Your task to perform on an android device: turn off priority inbox in the gmail app Image 0: 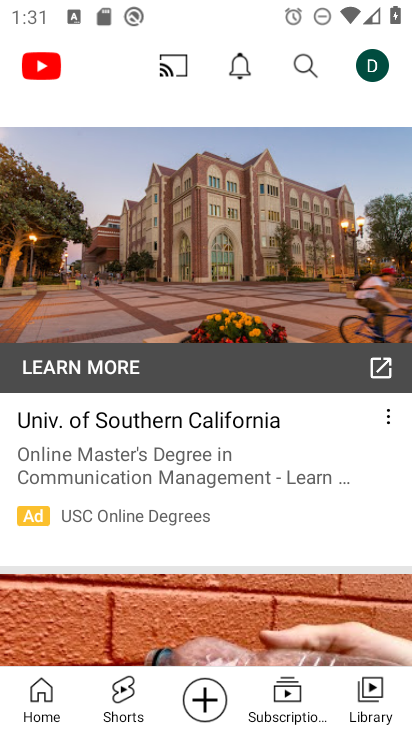
Step 0: press home button
Your task to perform on an android device: turn off priority inbox in the gmail app Image 1: 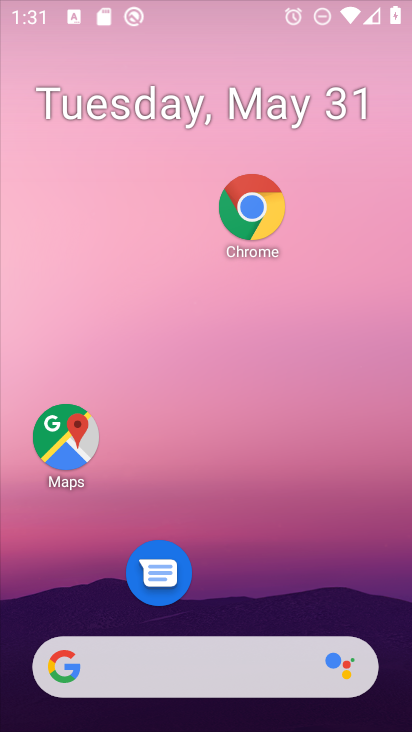
Step 1: drag from (214, 646) to (309, 218)
Your task to perform on an android device: turn off priority inbox in the gmail app Image 2: 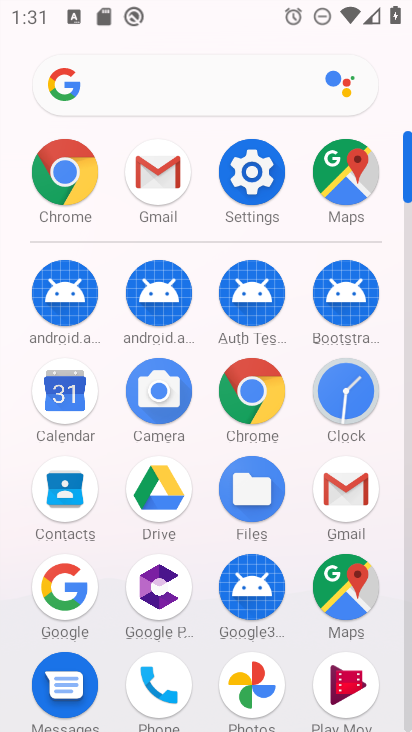
Step 2: click (343, 501)
Your task to perform on an android device: turn off priority inbox in the gmail app Image 3: 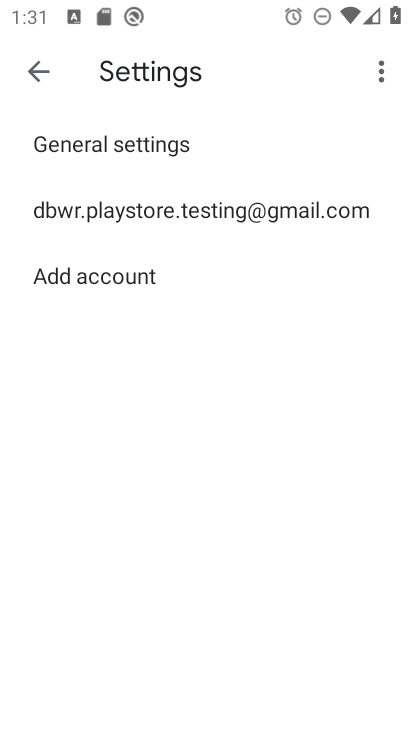
Step 3: click (202, 218)
Your task to perform on an android device: turn off priority inbox in the gmail app Image 4: 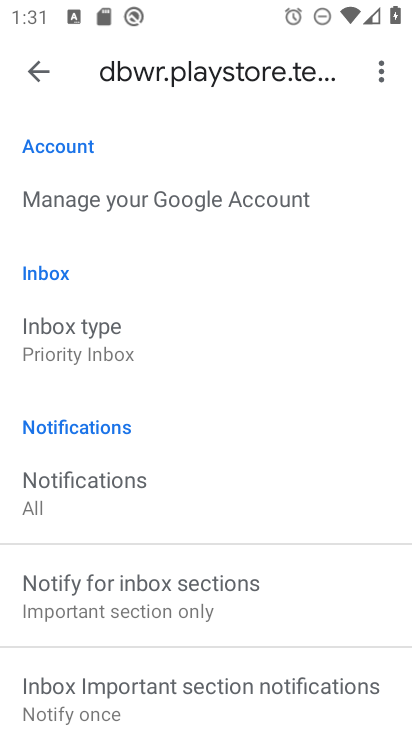
Step 4: click (119, 341)
Your task to perform on an android device: turn off priority inbox in the gmail app Image 5: 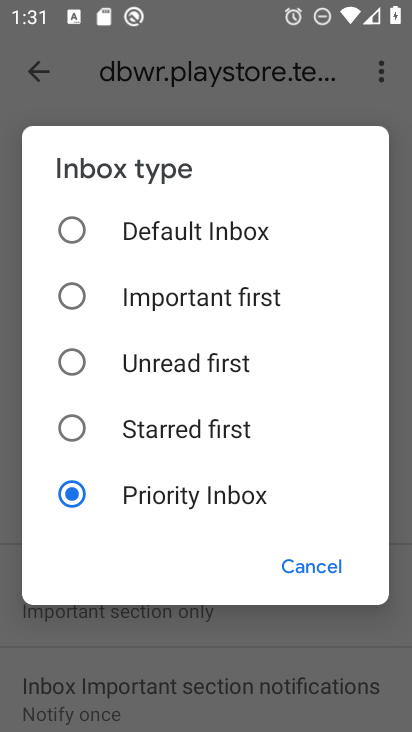
Step 5: click (77, 245)
Your task to perform on an android device: turn off priority inbox in the gmail app Image 6: 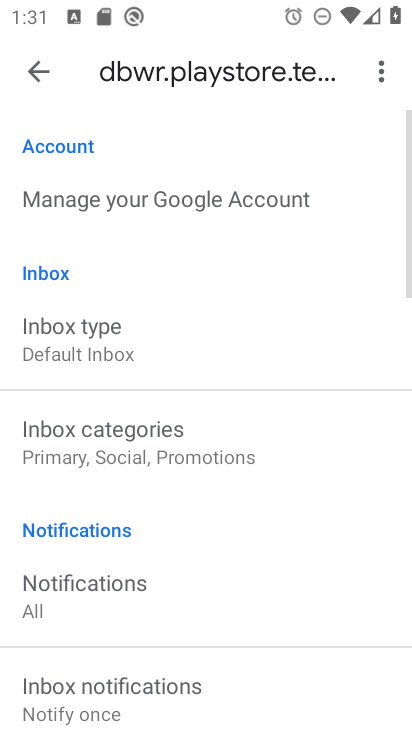
Step 6: task complete